Your task to perform on an android device: stop showing notifications on the lock screen Image 0: 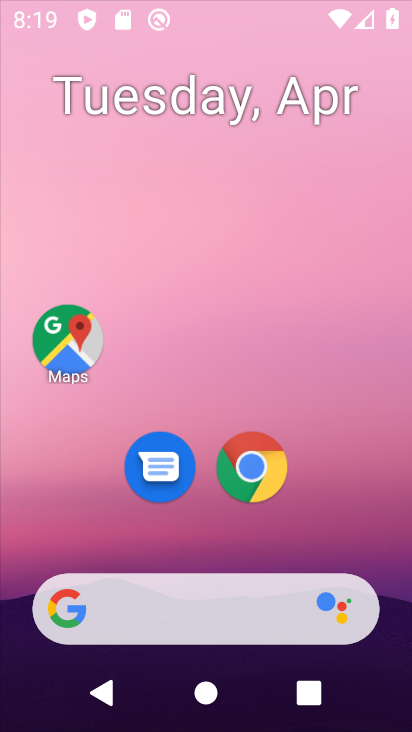
Step 0: drag from (362, 521) to (361, 17)
Your task to perform on an android device: stop showing notifications on the lock screen Image 1: 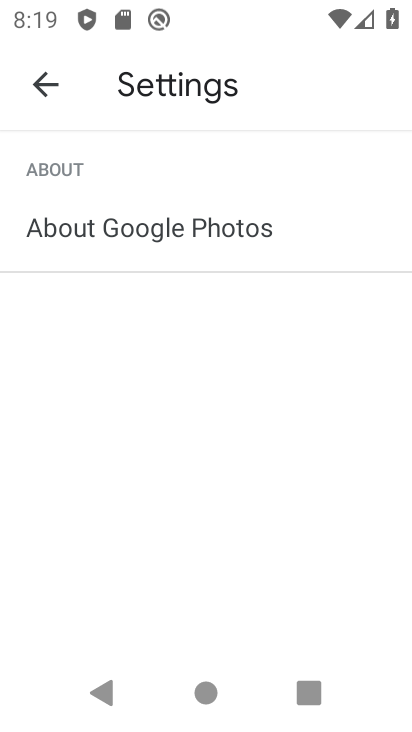
Step 1: press home button
Your task to perform on an android device: stop showing notifications on the lock screen Image 2: 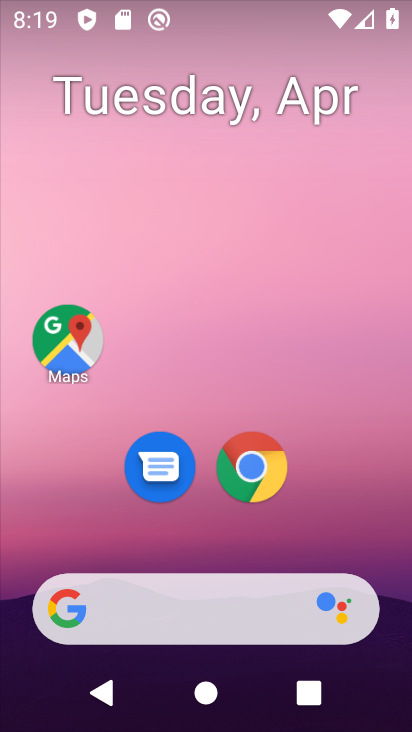
Step 2: drag from (338, 538) to (287, 14)
Your task to perform on an android device: stop showing notifications on the lock screen Image 3: 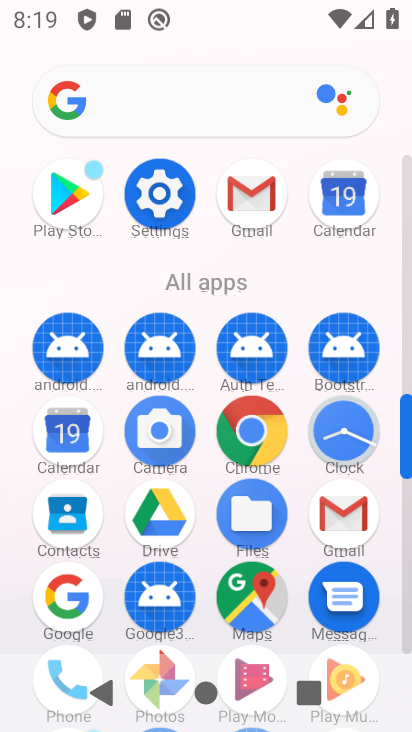
Step 3: click (147, 199)
Your task to perform on an android device: stop showing notifications on the lock screen Image 4: 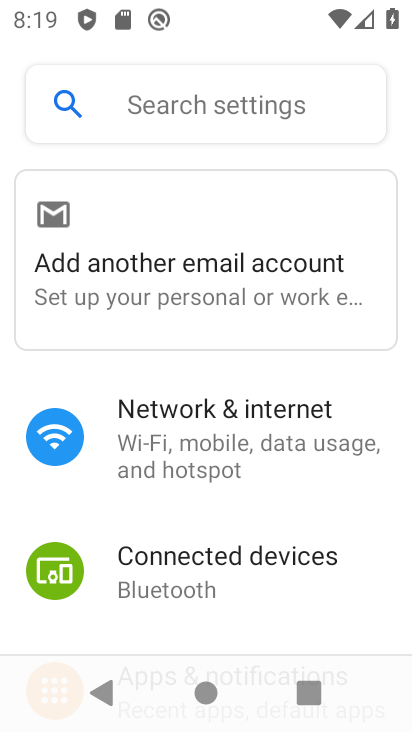
Step 4: drag from (376, 577) to (376, 320)
Your task to perform on an android device: stop showing notifications on the lock screen Image 5: 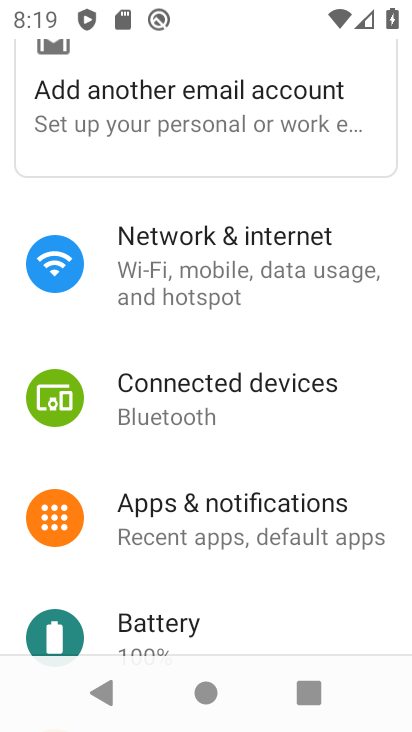
Step 5: click (206, 507)
Your task to perform on an android device: stop showing notifications on the lock screen Image 6: 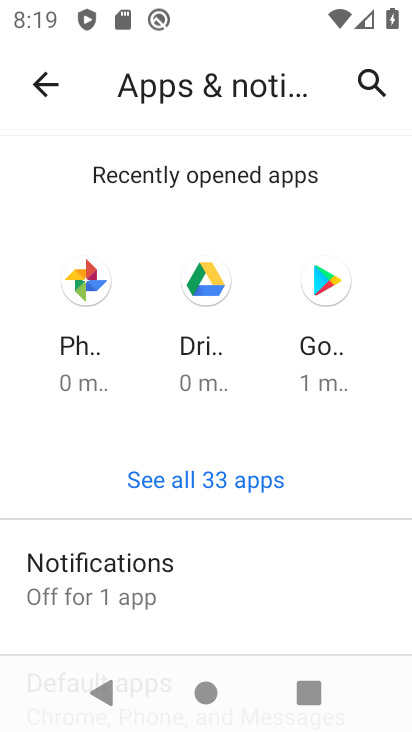
Step 6: click (103, 563)
Your task to perform on an android device: stop showing notifications on the lock screen Image 7: 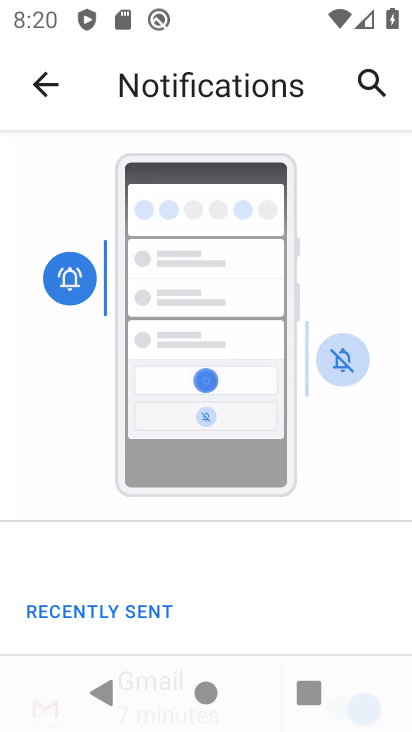
Step 7: drag from (374, 576) to (361, 115)
Your task to perform on an android device: stop showing notifications on the lock screen Image 8: 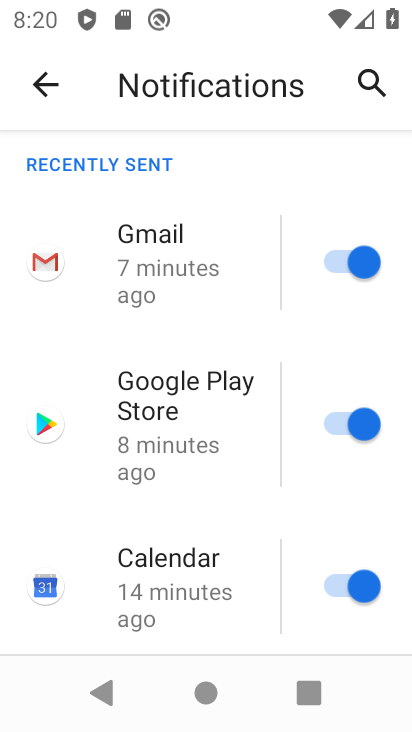
Step 8: drag from (194, 579) to (193, 179)
Your task to perform on an android device: stop showing notifications on the lock screen Image 9: 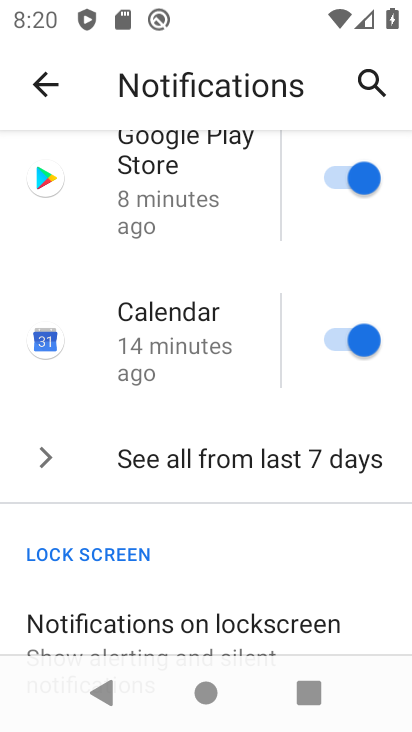
Step 9: drag from (133, 535) to (143, 170)
Your task to perform on an android device: stop showing notifications on the lock screen Image 10: 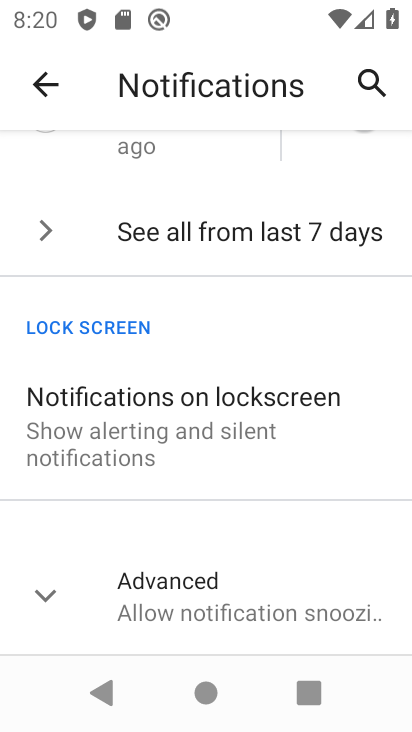
Step 10: click (65, 439)
Your task to perform on an android device: stop showing notifications on the lock screen Image 11: 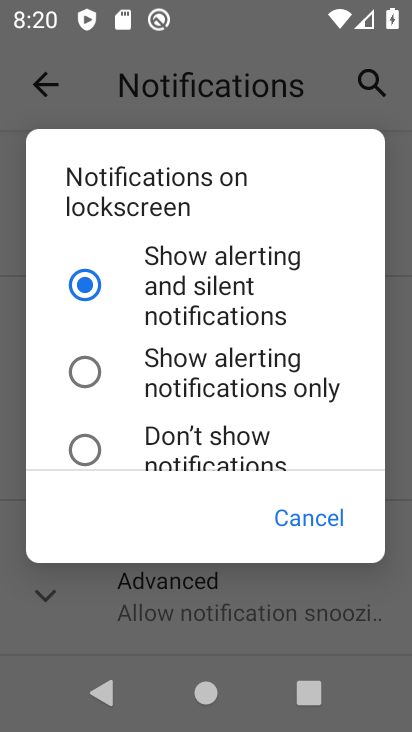
Step 11: click (86, 454)
Your task to perform on an android device: stop showing notifications on the lock screen Image 12: 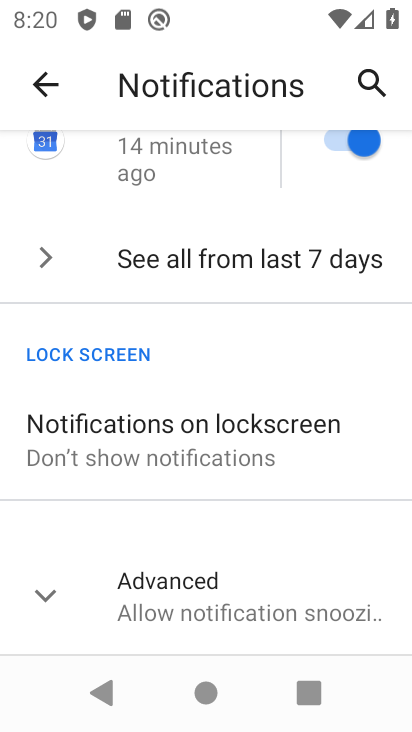
Step 12: task complete